Your task to perform on an android device: Open display settings Image 0: 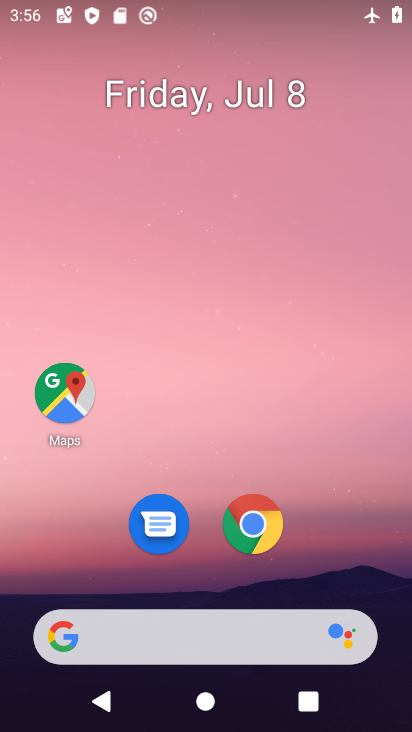
Step 0: drag from (315, 533) to (330, 1)
Your task to perform on an android device: Open display settings Image 1: 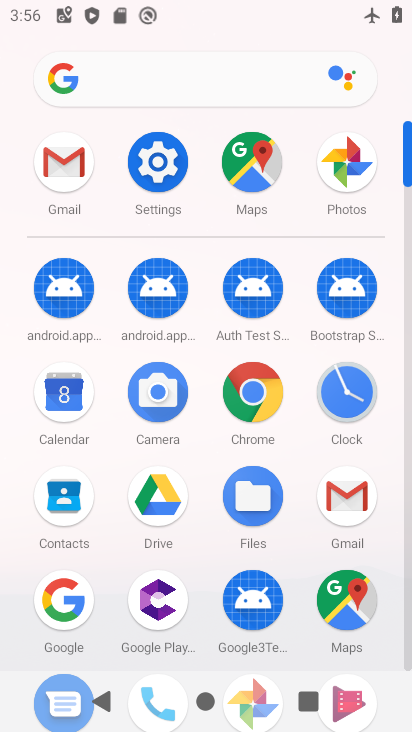
Step 1: click (171, 165)
Your task to perform on an android device: Open display settings Image 2: 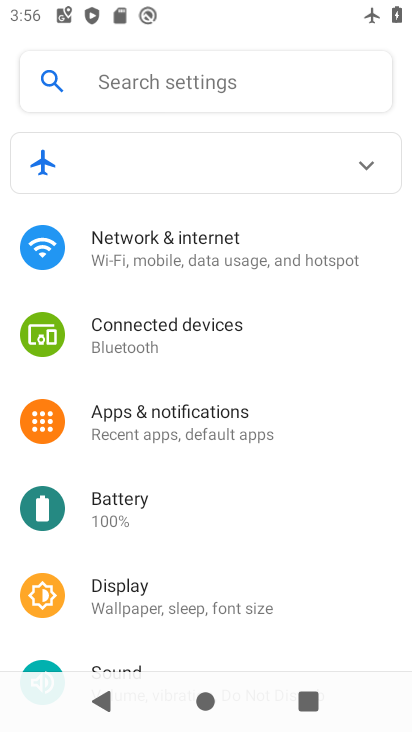
Step 2: click (133, 598)
Your task to perform on an android device: Open display settings Image 3: 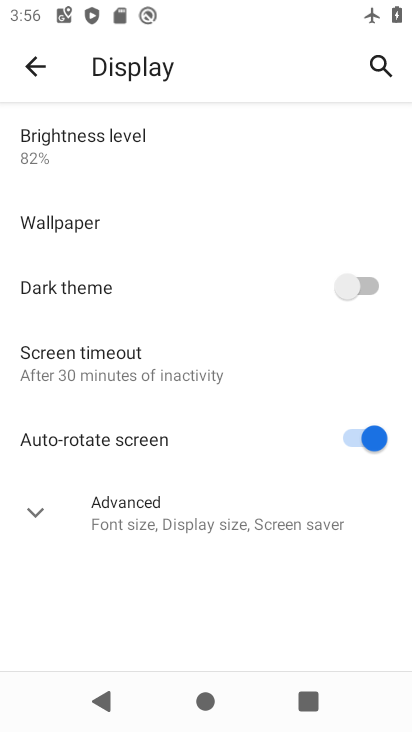
Step 3: click (34, 510)
Your task to perform on an android device: Open display settings Image 4: 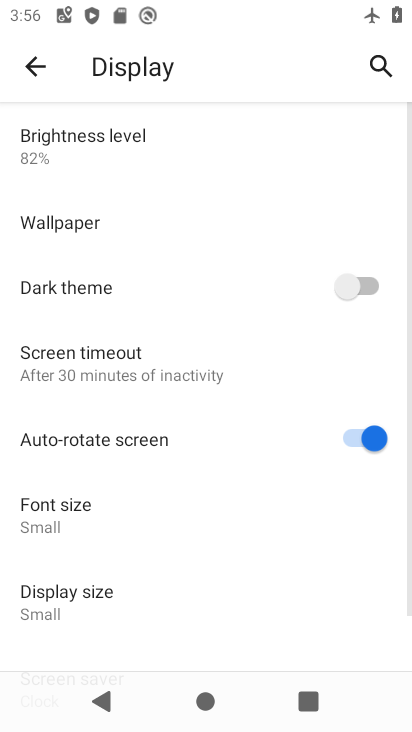
Step 4: task complete